Your task to perform on an android device: Add "logitech g pro" to the cart on bestbuy Image 0: 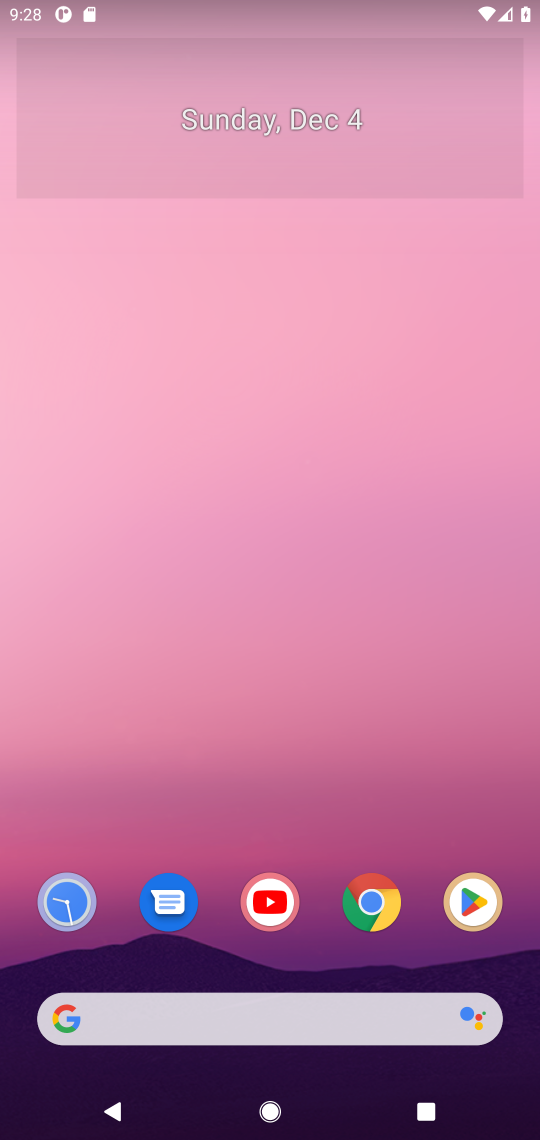
Step 0: click (360, 903)
Your task to perform on an android device: Add "logitech g pro" to the cart on bestbuy Image 1: 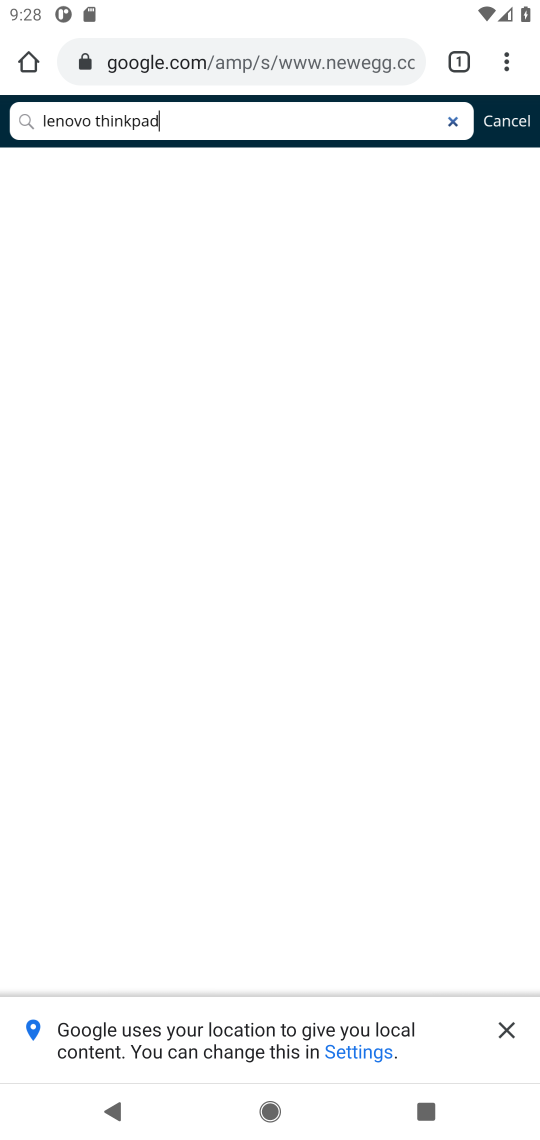
Step 1: click (227, 64)
Your task to perform on an android device: Add "logitech g pro" to the cart on bestbuy Image 2: 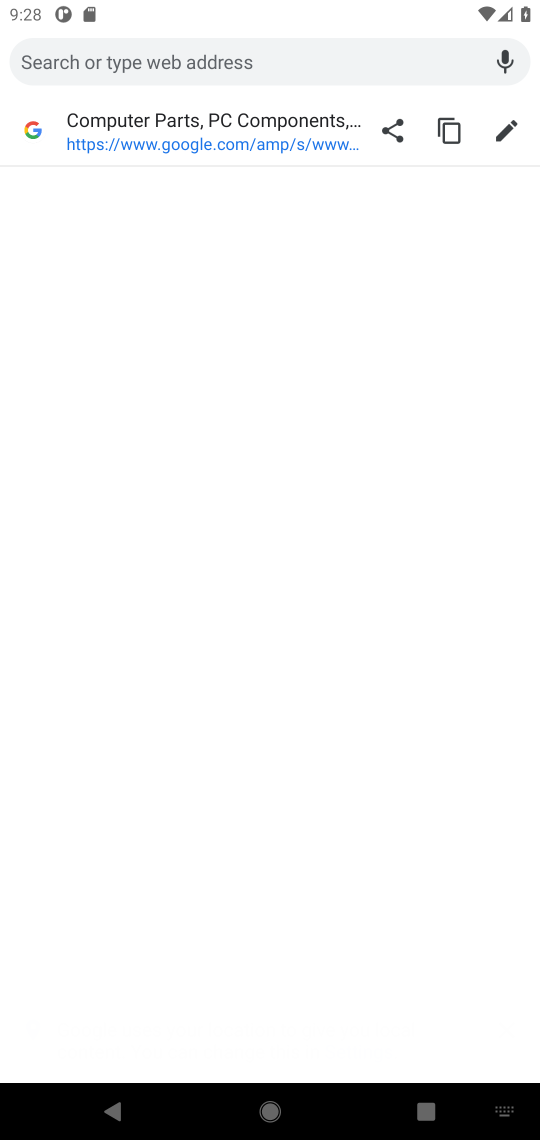
Step 2: type "bestbuy"
Your task to perform on an android device: Add "logitech g pro" to the cart on bestbuy Image 3: 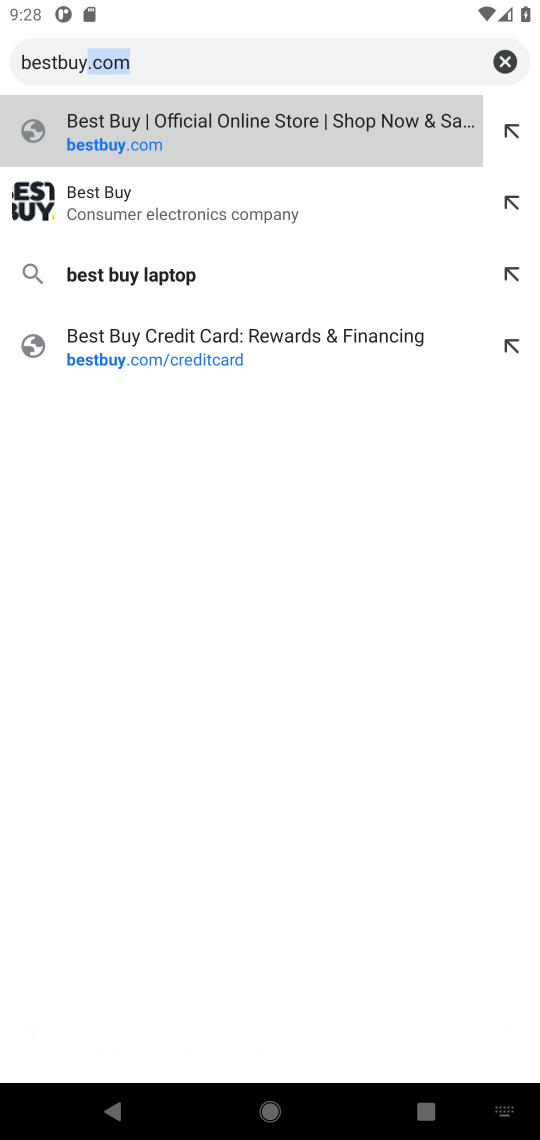
Step 3: click (11, 192)
Your task to perform on an android device: Add "logitech g pro" to the cart on bestbuy Image 4: 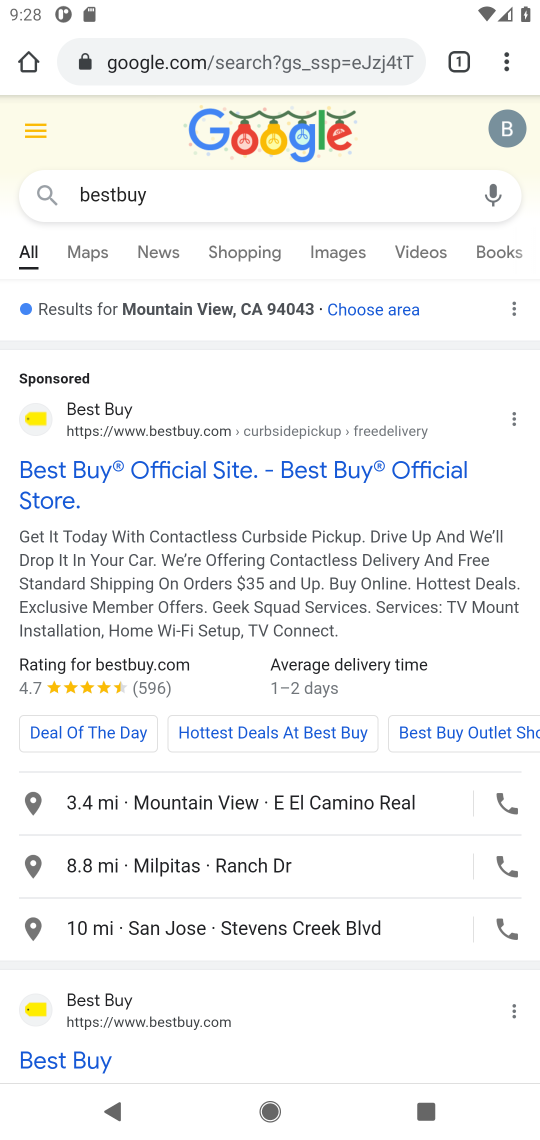
Step 4: click (123, 456)
Your task to perform on an android device: Add "logitech g pro" to the cart on bestbuy Image 5: 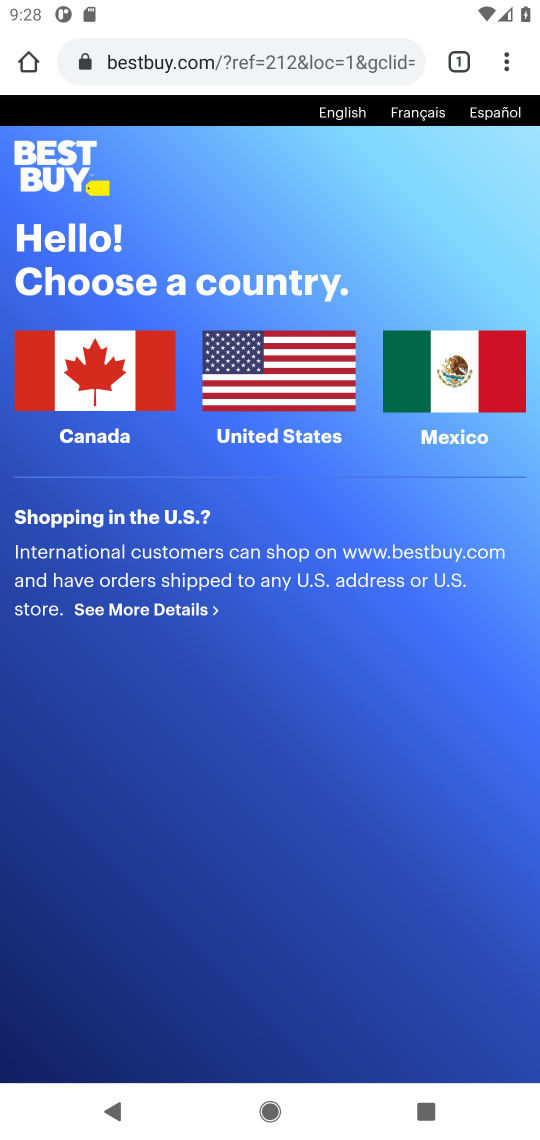
Step 5: click (337, 402)
Your task to perform on an android device: Add "logitech g pro" to the cart on bestbuy Image 6: 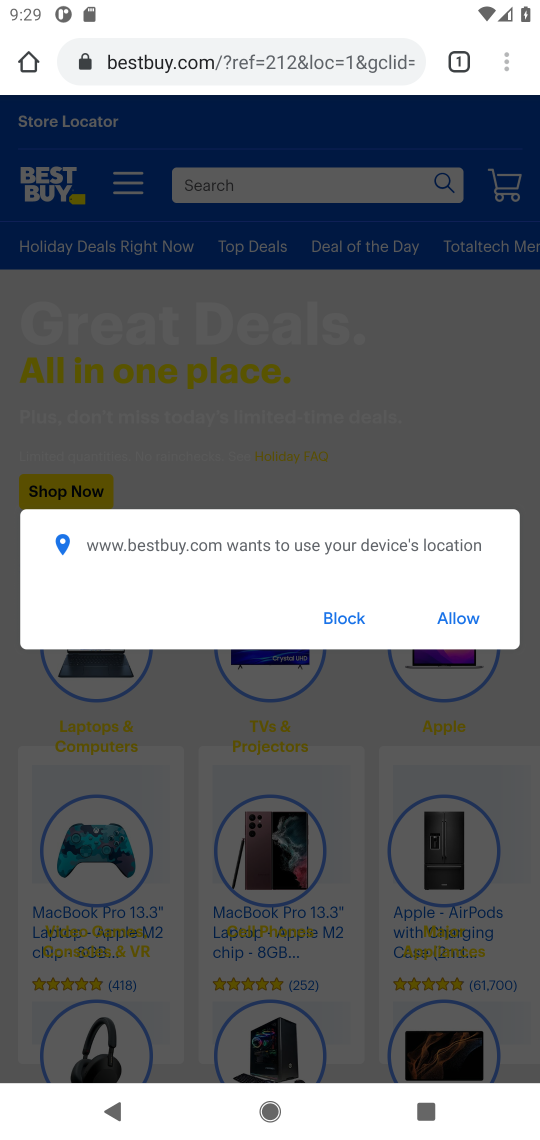
Step 6: click (339, 638)
Your task to perform on an android device: Add "logitech g pro" to the cart on bestbuy Image 7: 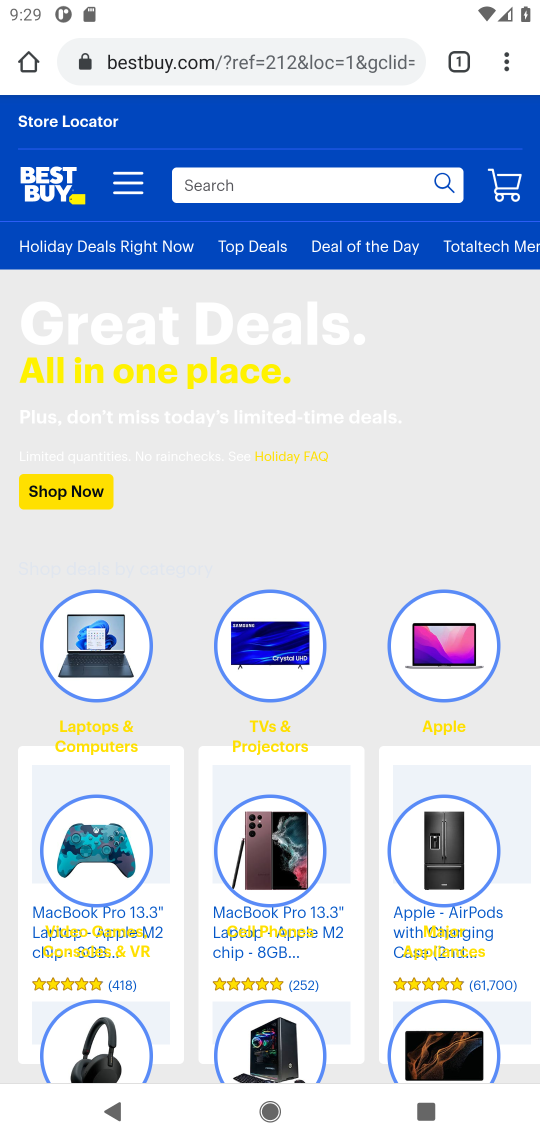
Step 7: click (342, 625)
Your task to perform on an android device: Add "logitech g pro" to the cart on bestbuy Image 8: 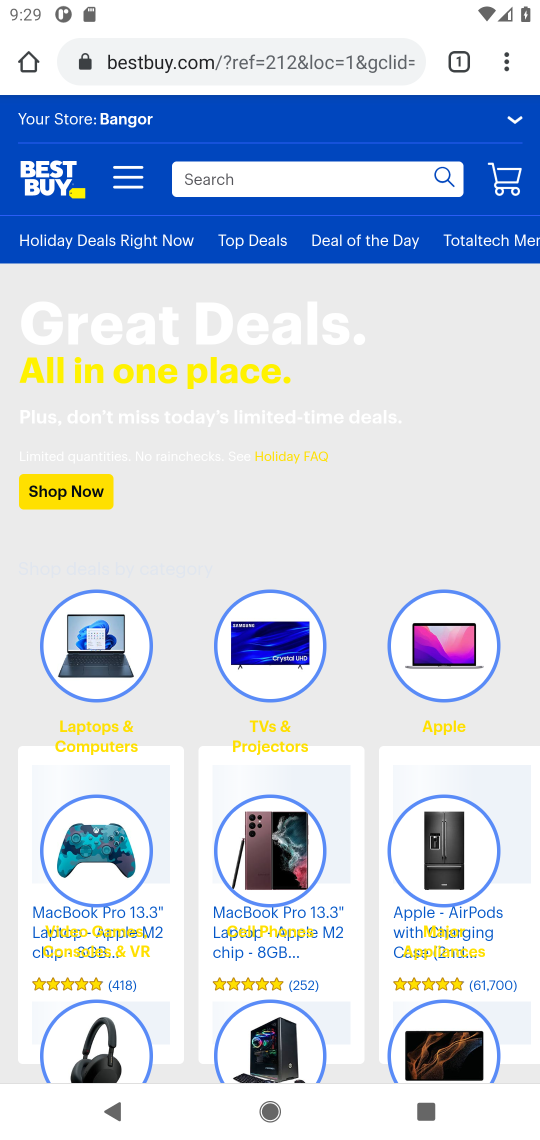
Step 8: click (310, 184)
Your task to perform on an android device: Add "logitech g pro" to the cart on bestbuy Image 9: 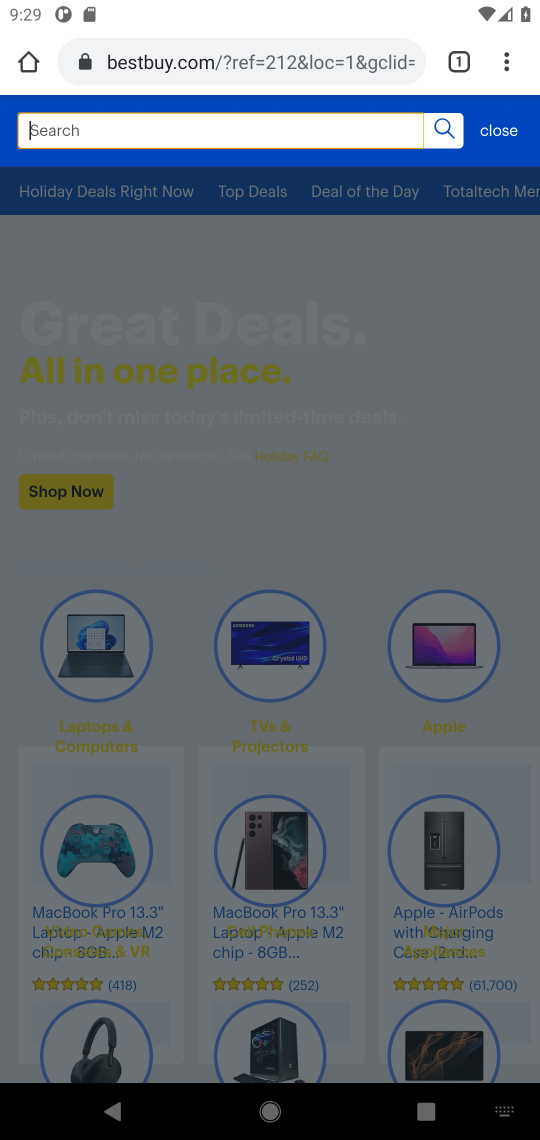
Step 9: type "logitech g pro"
Your task to perform on an android device: Add "logitech g pro" to the cart on bestbuy Image 10: 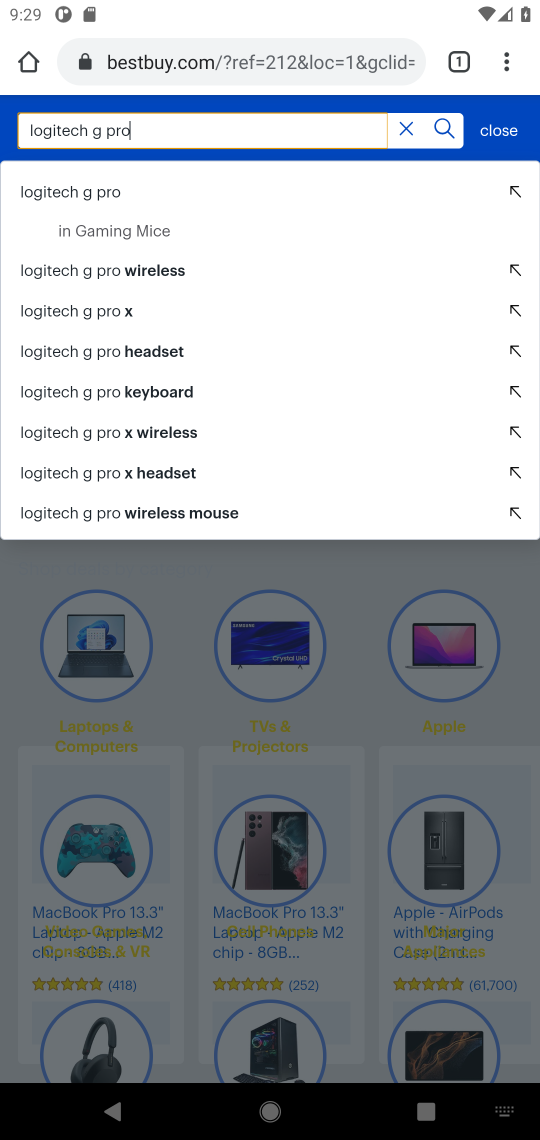
Step 10: click (137, 204)
Your task to perform on an android device: Add "logitech g pro" to the cart on bestbuy Image 11: 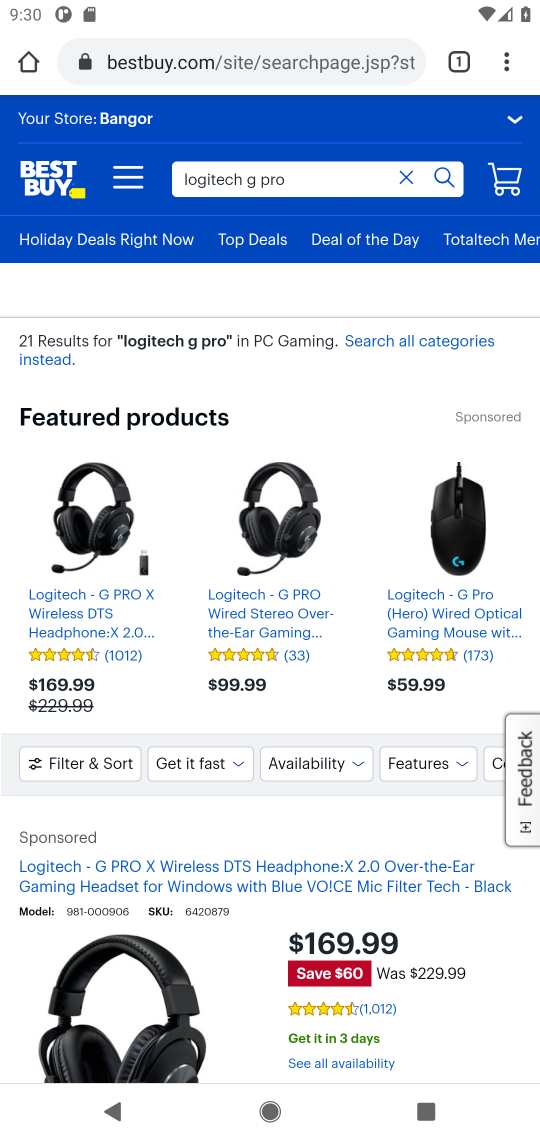
Step 11: drag from (234, 996) to (217, 450)
Your task to perform on an android device: Add "logitech g pro" to the cart on bestbuy Image 12: 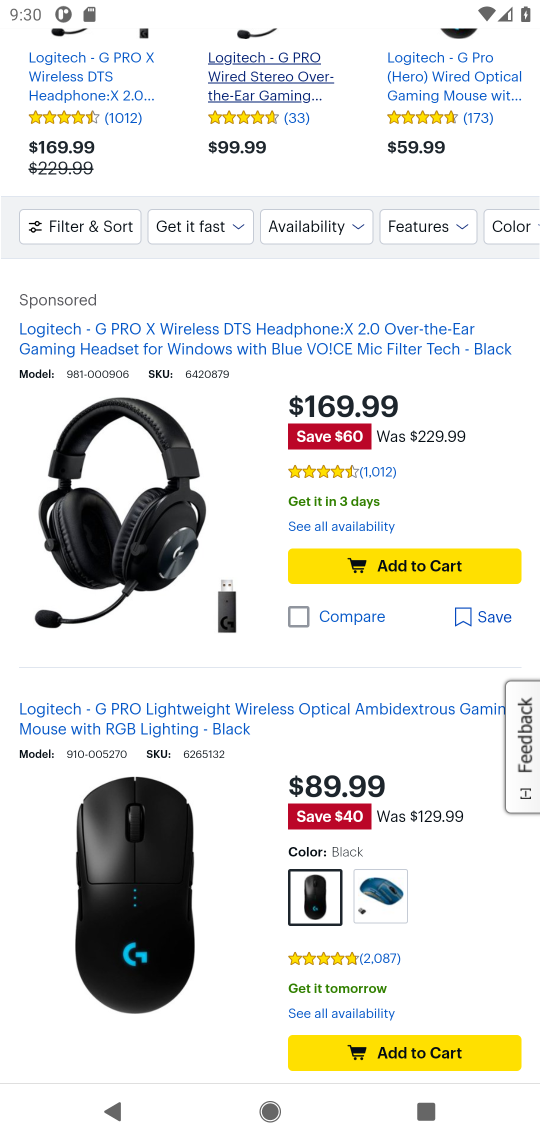
Step 12: click (396, 567)
Your task to perform on an android device: Add "logitech g pro" to the cart on bestbuy Image 13: 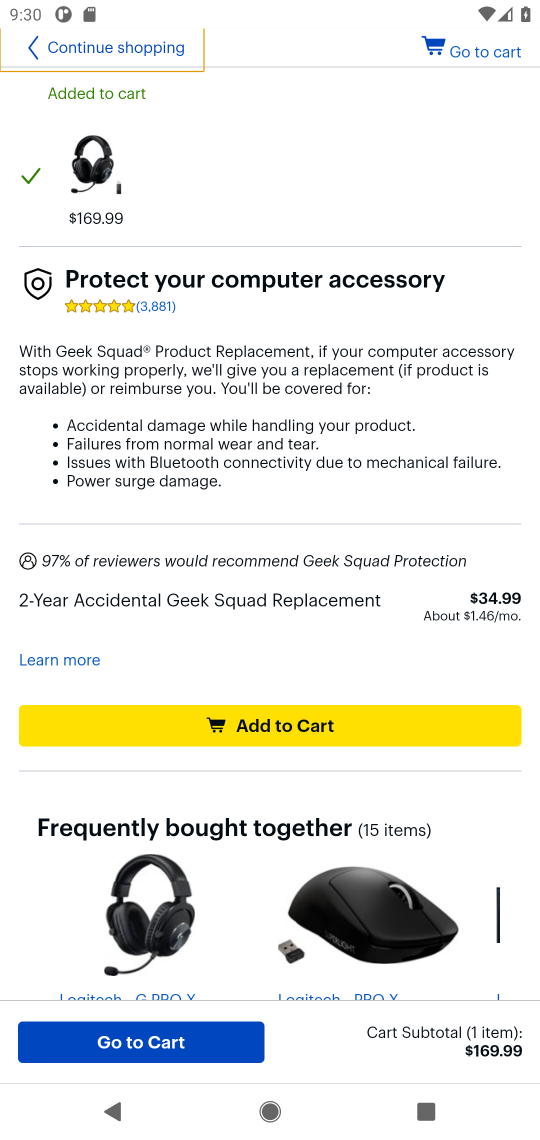
Step 13: task complete